Your task to perform on an android device: turn on wifi Image 0: 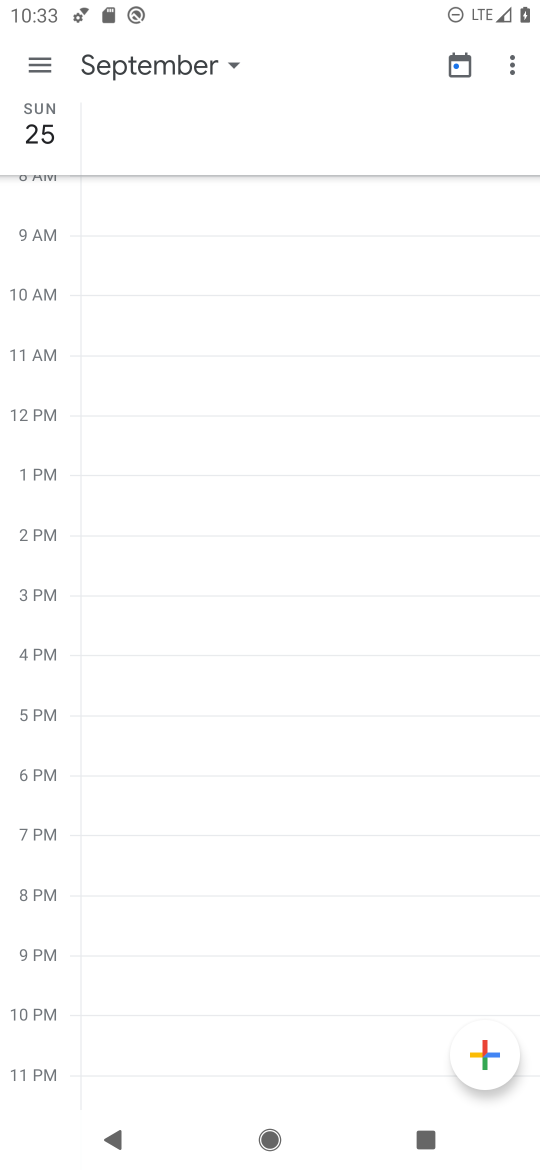
Step 0: press home button
Your task to perform on an android device: turn on wifi Image 1: 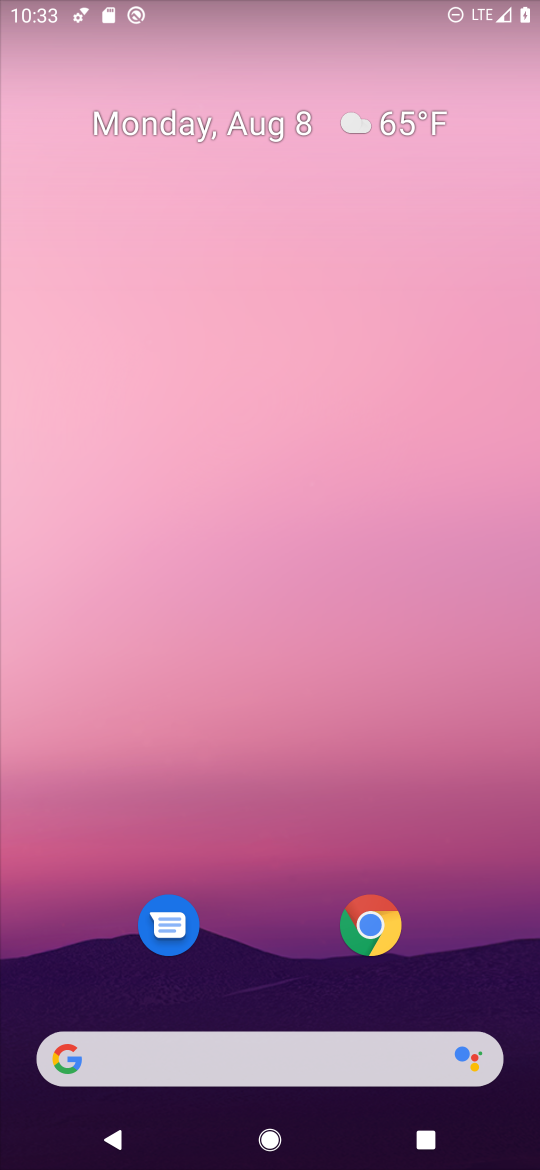
Step 1: drag from (271, 950) to (362, 146)
Your task to perform on an android device: turn on wifi Image 2: 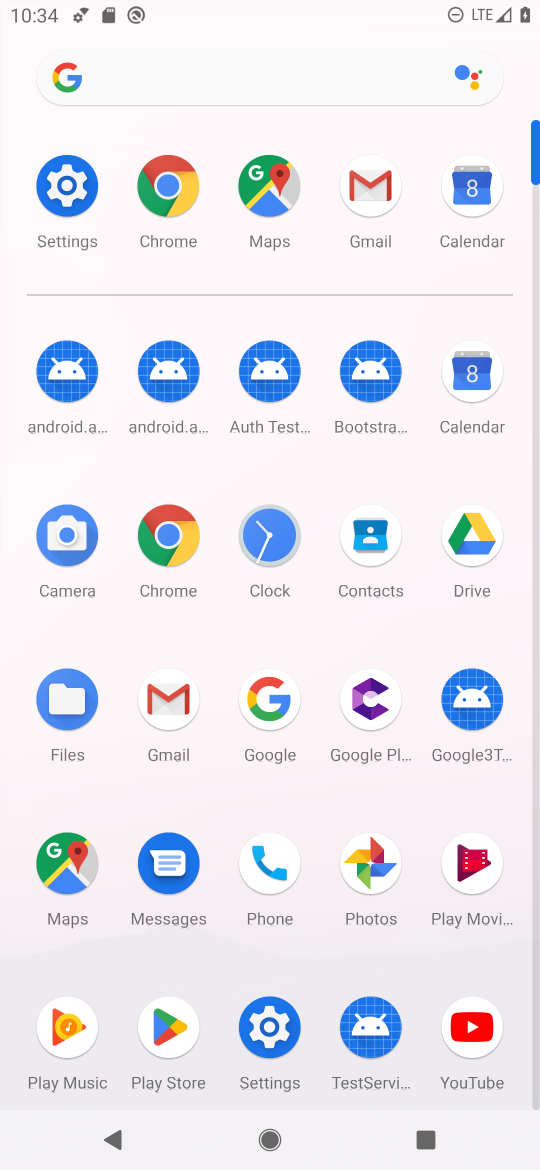
Step 2: click (273, 1023)
Your task to perform on an android device: turn on wifi Image 3: 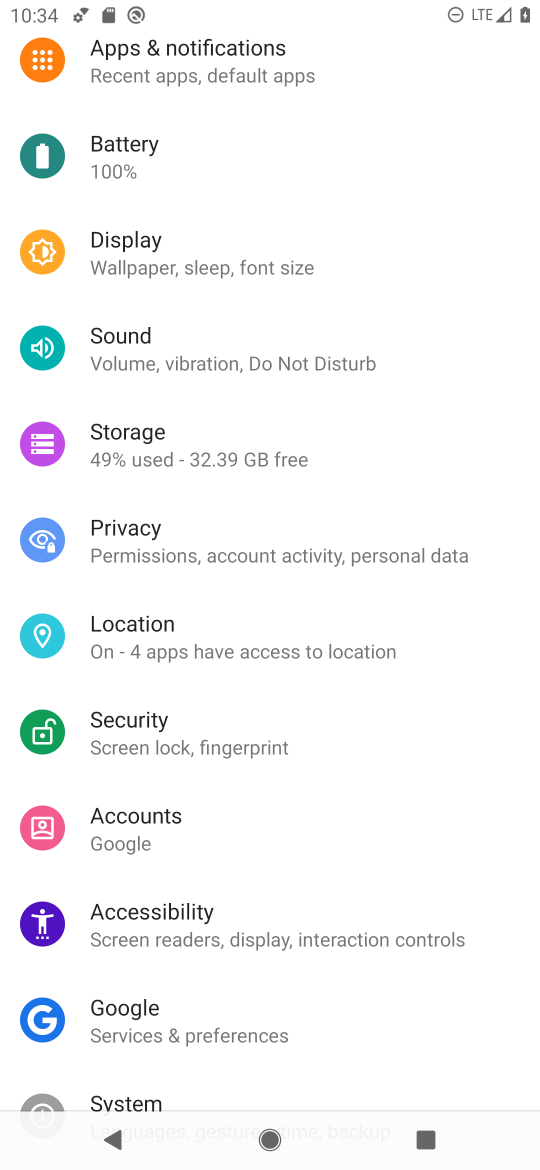
Step 3: drag from (231, 139) to (171, 772)
Your task to perform on an android device: turn on wifi Image 4: 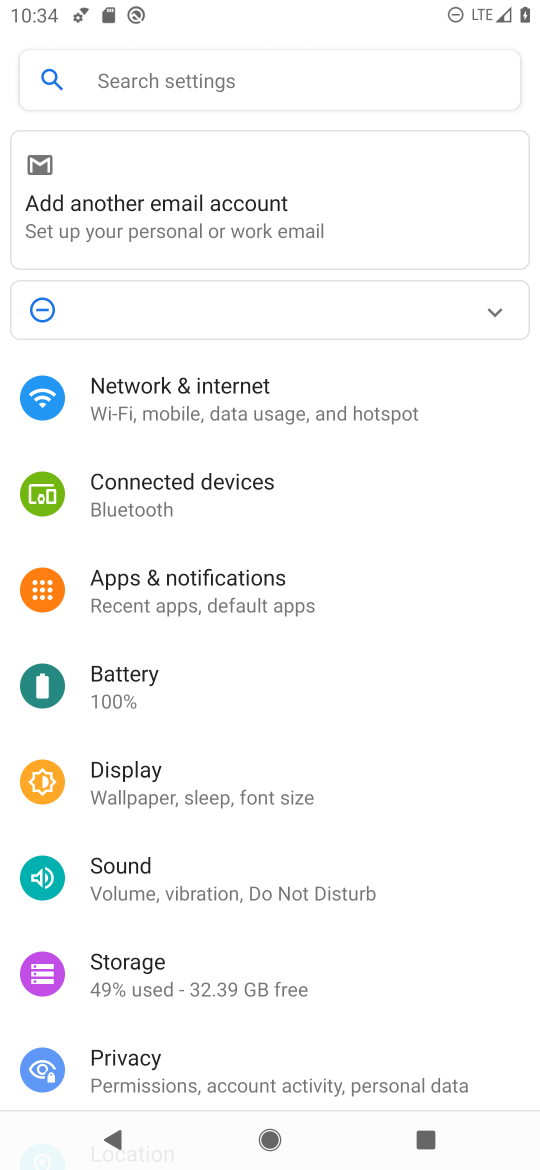
Step 4: click (173, 407)
Your task to perform on an android device: turn on wifi Image 5: 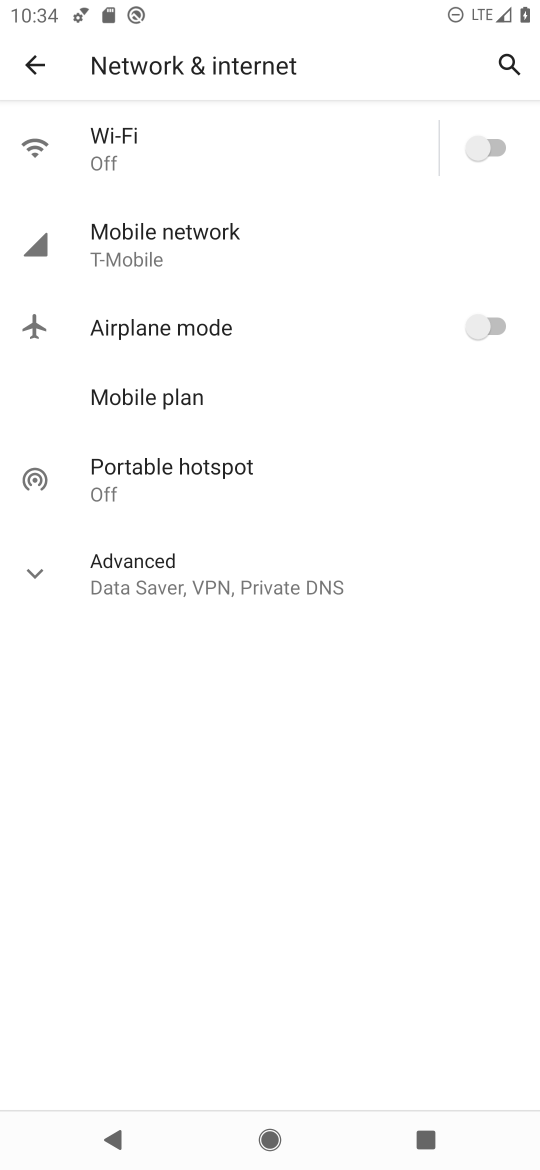
Step 5: click (498, 148)
Your task to perform on an android device: turn on wifi Image 6: 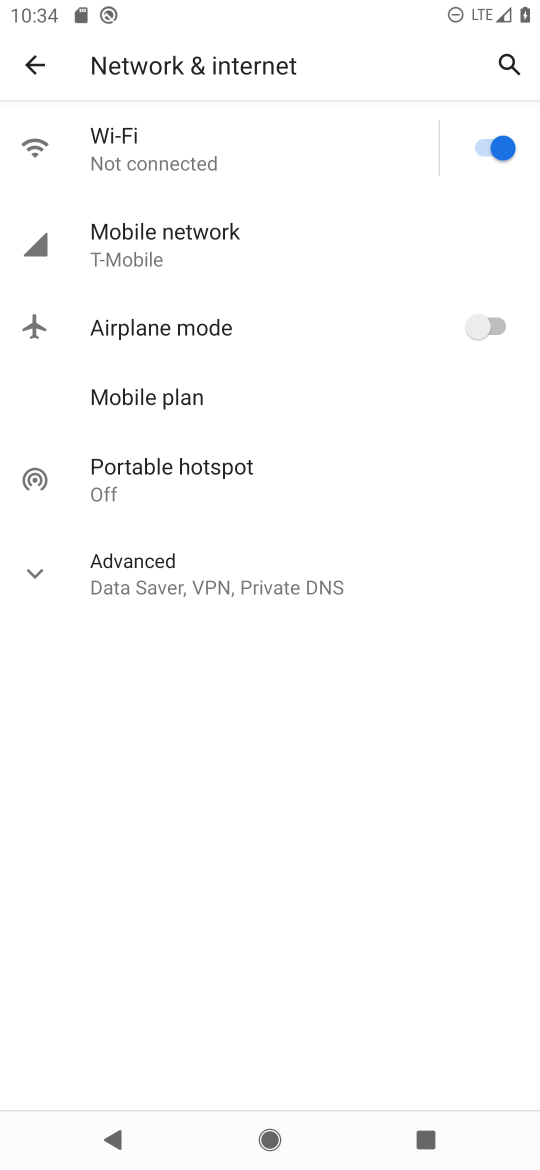
Step 6: task complete